Your task to perform on an android device: turn on priority inbox in the gmail app Image 0: 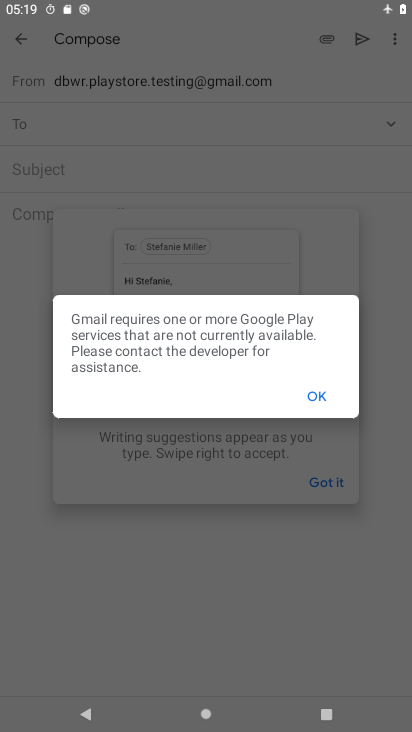
Step 0: press home button
Your task to perform on an android device: turn on priority inbox in the gmail app Image 1: 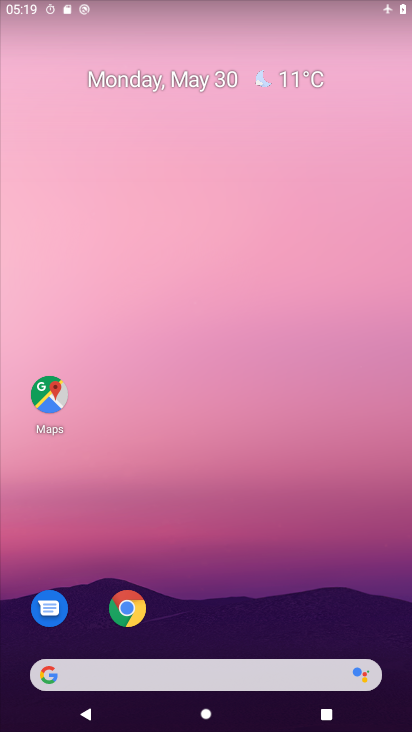
Step 1: drag from (272, 530) to (138, 12)
Your task to perform on an android device: turn on priority inbox in the gmail app Image 2: 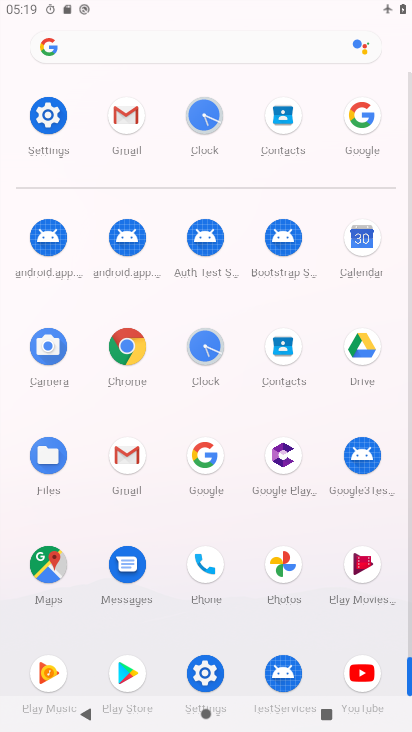
Step 2: click (126, 462)
Your task to perform on an android device: turn on priority inbox in the gmail app Image 3: 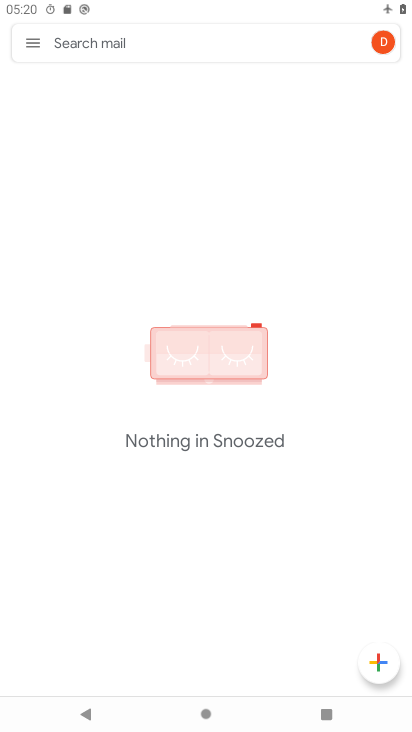
Step 3: click (31, 42)
Your task to perform on an android device: turn on priority inbox in the gmail app Image 4: 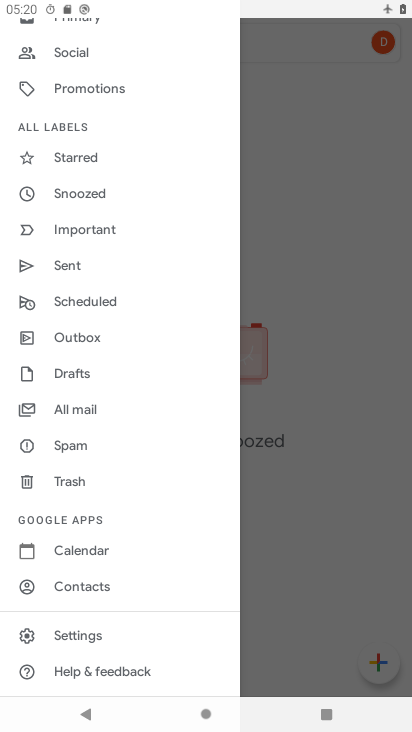
Step 4: click (120, 638)
Your task to perform on an android device: turn on priority inbox in the gmail app Image 5: 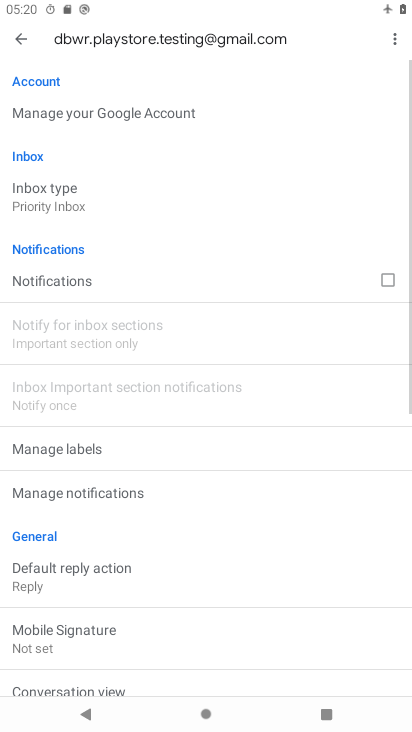
Step 5: click (107, 194)
Your task to perform on an android device: turn on priority inbox in the gmail app Image 6: 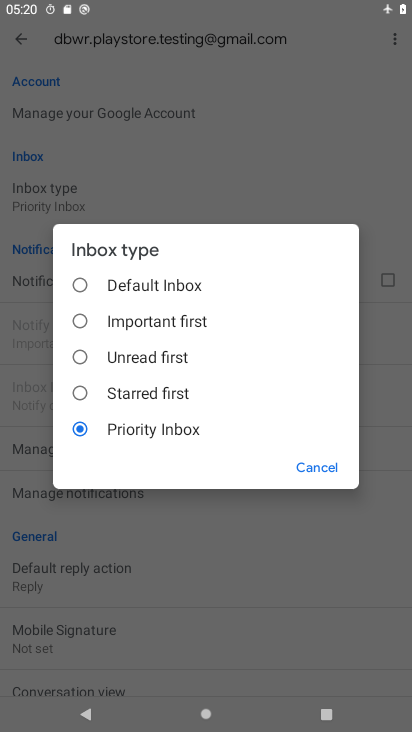
Step 6: task complete